Your task to perform on an android device: toggle location history Image 0: 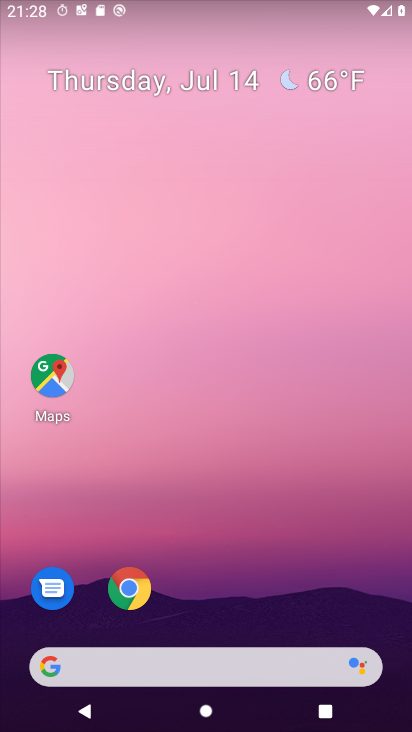
Step 0: drag from (341, 602) to (358, 120)
Your task to perform on an android device: toggle location history Image 1: 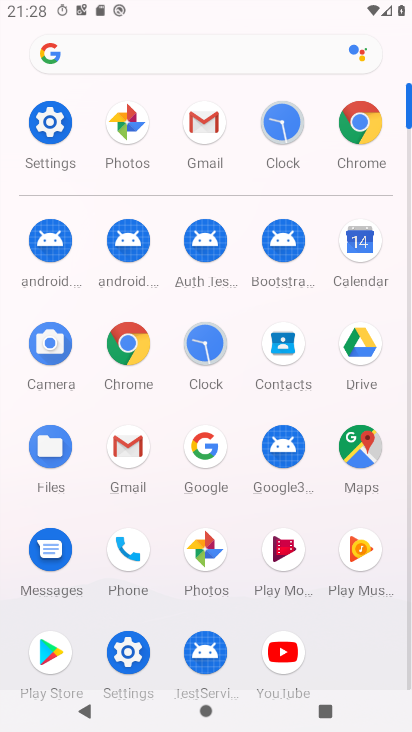
Step 1: click (60, 127)
Your task to perform on an android device: toggle location history Image 2: 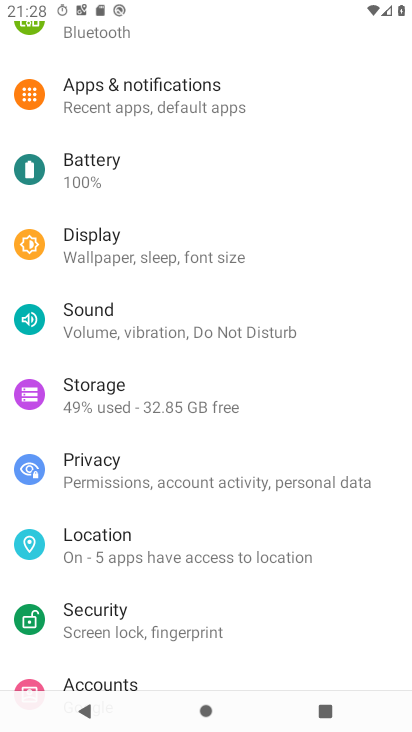
Step 2: drag from (348, 237) to (349, 337)
Your task to perform on an android device: toggle location history Image 3: 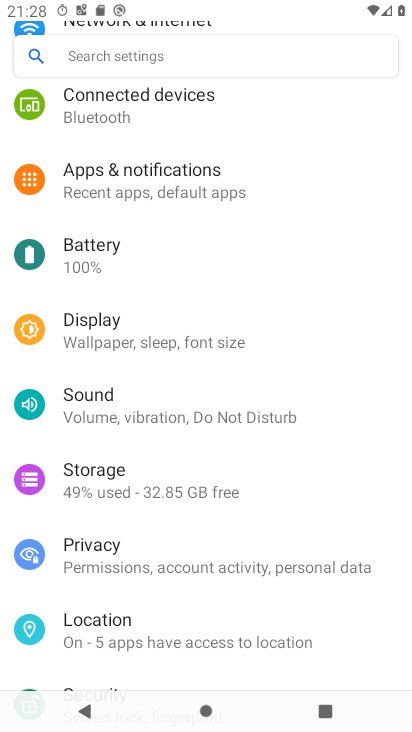
Step 3: drag from (350, 239) to (347, 347)
Your task to perform on an android device: toggle location history Image 4: 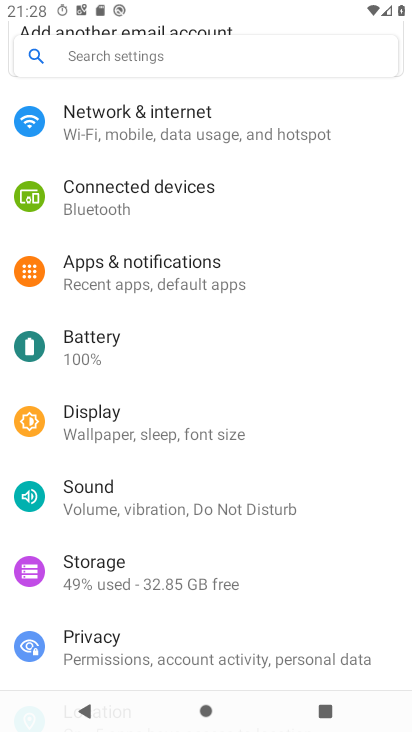
Step 4: drag from (364, 235) to (349, 361)
Your task to perform on an android device: toggle location history Image 5: 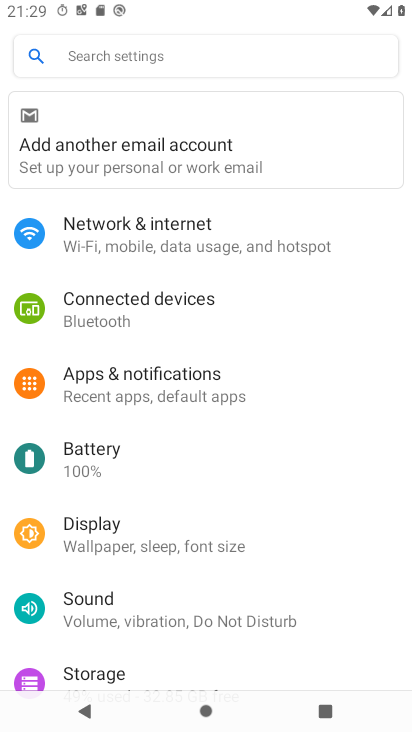
Step 5: drag from (364, 297) to (348, 403)
Your task to perform on an android device: toggle location history Image 6: 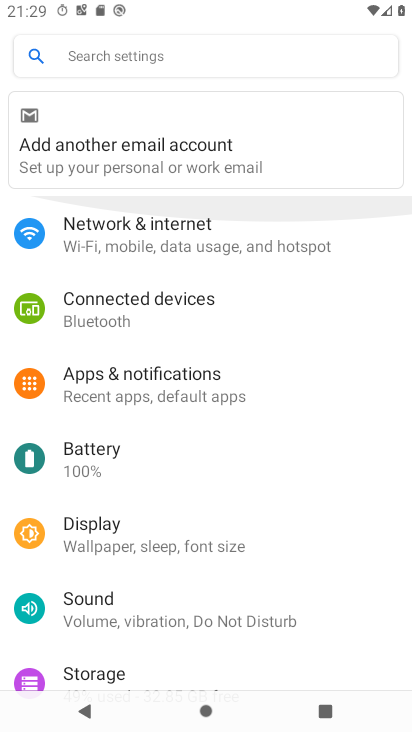
Step 6: drag from (353, 461) to (363, 328)
Your task to perform on an android device: toggle location history Image 7: 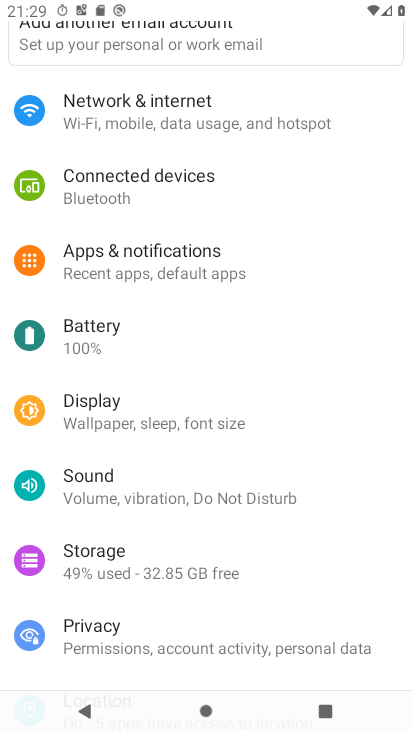
Step 7: drag from (364, 449) to (368, 367)
Your task to perform on an android device: toggle location history Image 8: 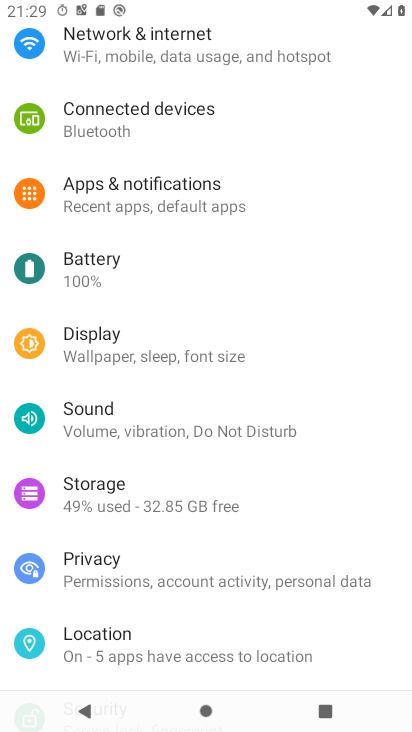
Step 8: drag from (368, 486) to (367, 385)
Your task to perform on an android device: toggle location history Image 9: 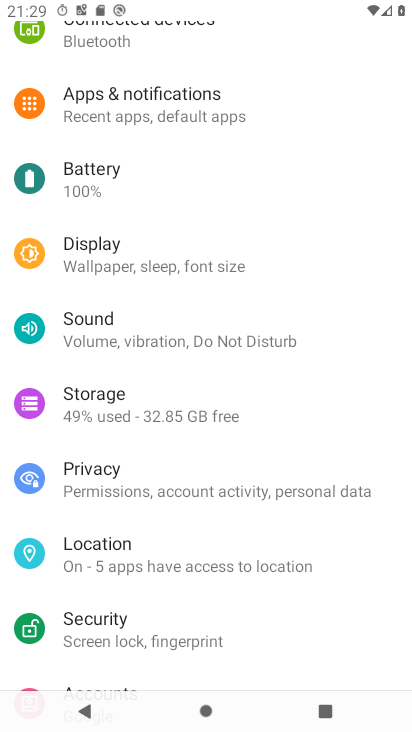
Step 9: drag from (364, 521) to (366, 420)
Your task to perform on an android device: toggle location history Image 10: 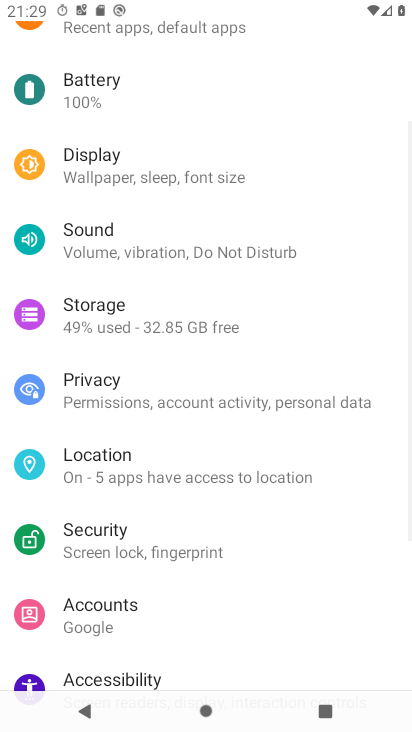
Step 10: drag from (358, 505) to (362, 427)
Your task to perform on an android device: toggle location history Image 11: 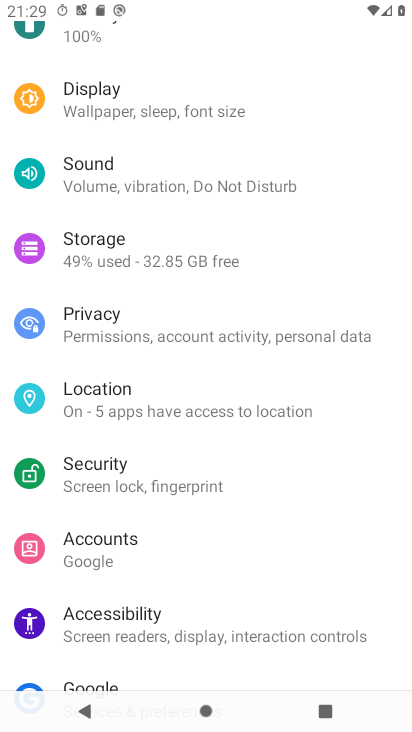
Step 11: click (324, 399)
Your task to perform on an android device: toggle location history Image 12: 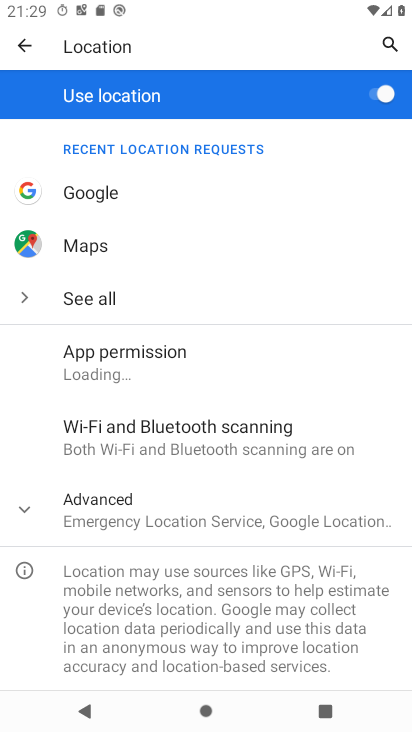
Step 12: click (317, 501)
Your task to perform on an android device: toggle location history Image 13: 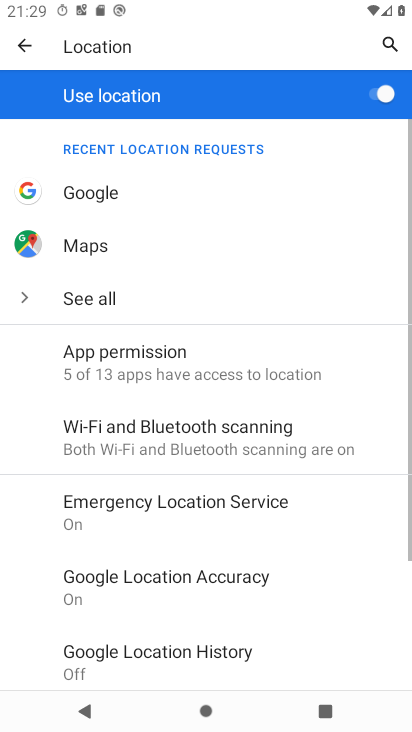
Step 13: drag from (333, 537) to (342, 459)
Your task to perform on an android device: toggle location history Image 14: 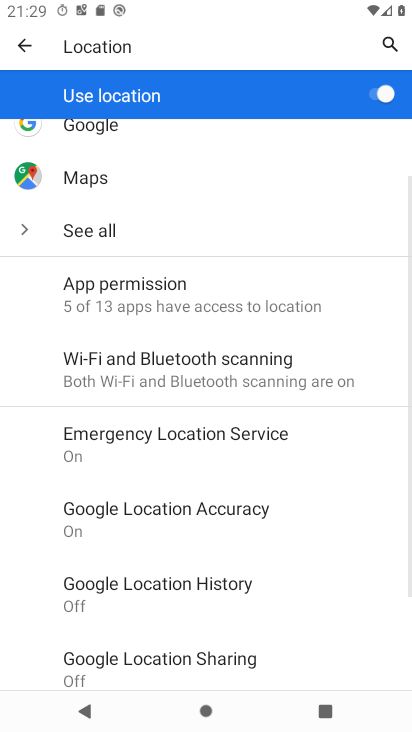
Step 14: drag from (349, 530) to (354, 425)
Your task to perform on an android device: toggle location history Image 15: 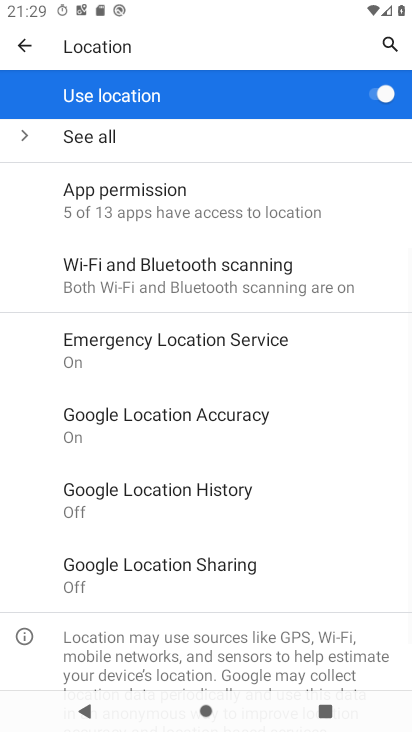
Step 15: drag from (349, 508) to (344, 338)
Your task to perform on an android device: toggle location history Image 16: 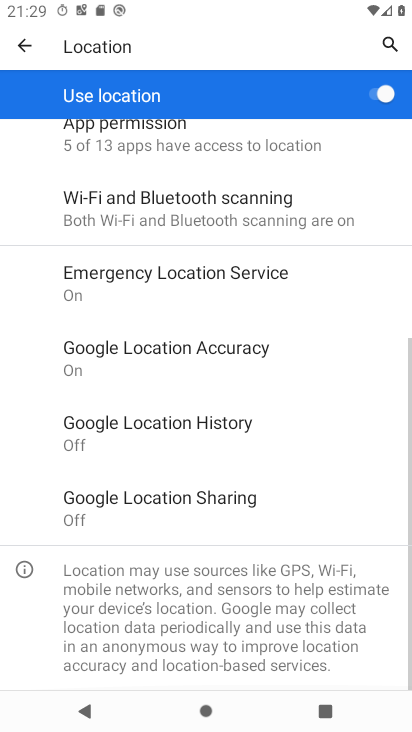
Step 16: click (296, 444)
Your task to perform on an android device: toggle location history Image 17: 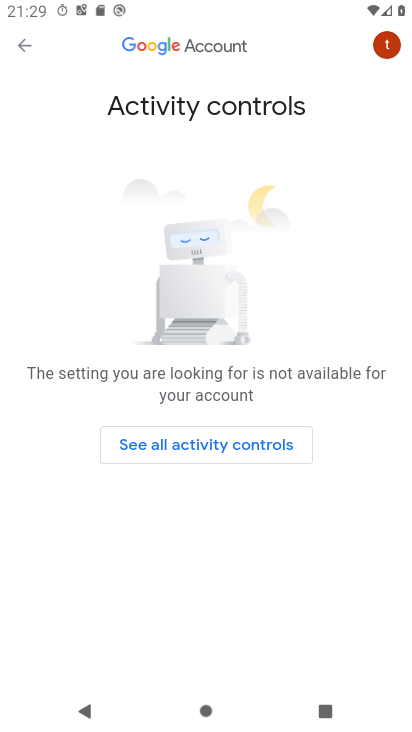
Step 17: click (237, 445)
Your task to perform on an android device: toggle location history Image 18: 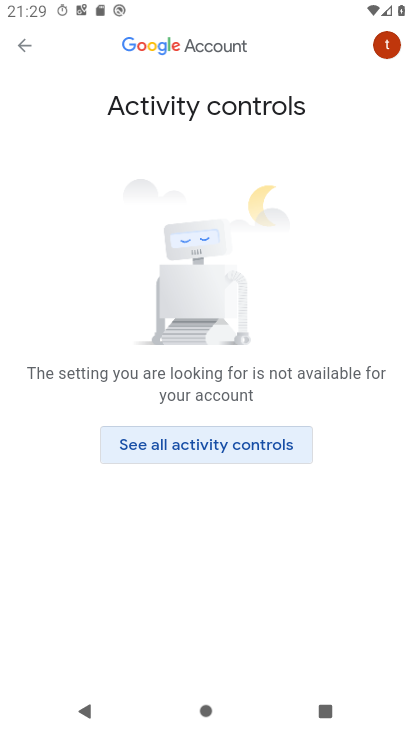
Step 18: click (218, 452)
Your task to perform on an android device: toggle location history Image 19: 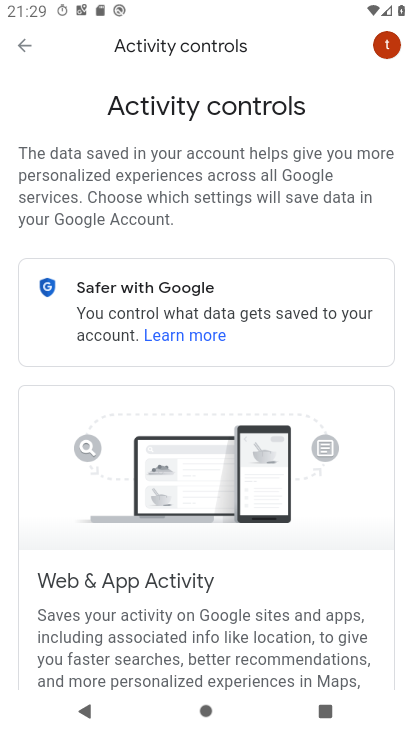
Step 19: drag from (310, 558) to (305, 451)
Your task to perform on an android device: toggle location history Image 20: 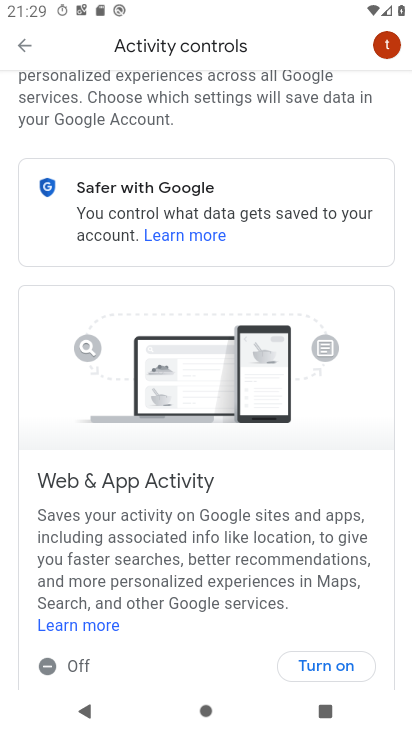
Step 20: drag from (297, 550) to (294, 470)
Your task to perform on an android device: toggle location history Image 21: 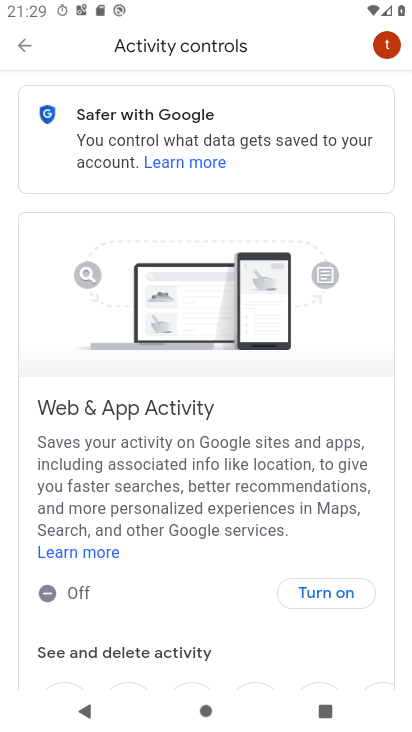
Step 21: click (327, 589)
Your task to perform on an android device: toggle location history Image 22: 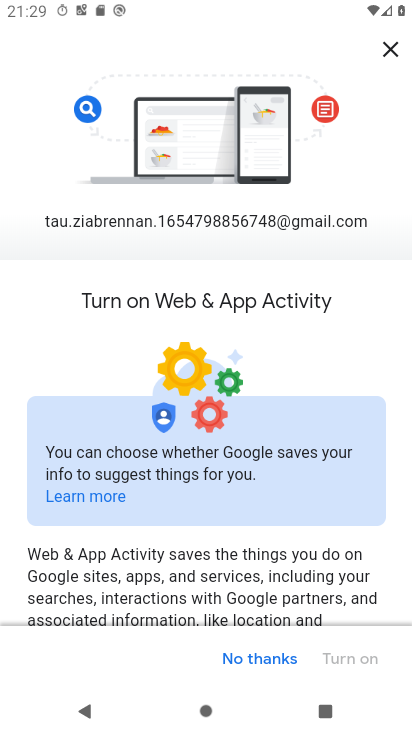
Step 22: drag from (289, 527) to (285, 401)
Your task to perform on an android device: toggle location history Image 23: 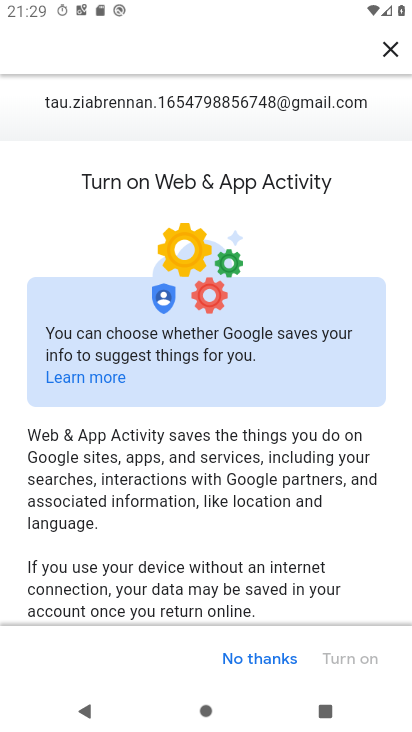
Step 23: drag from (283, 534) to (282, 419)
Your task to perform on an android device: toggle location history Image 24: 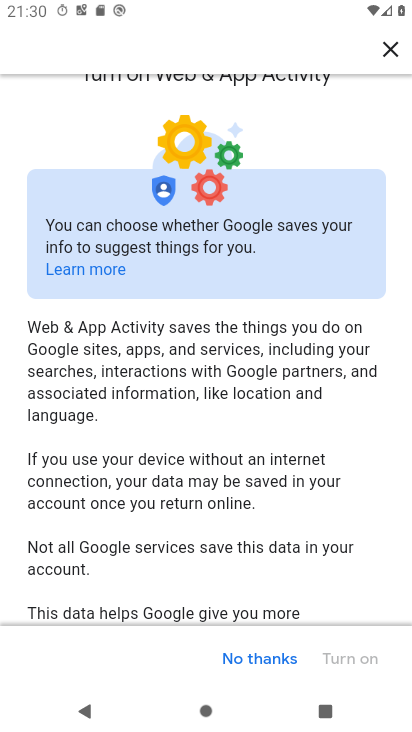
Step 24: drag from (282, 515) to (283, 412)
Your task to perform on an android device: toggle location history Image 25: 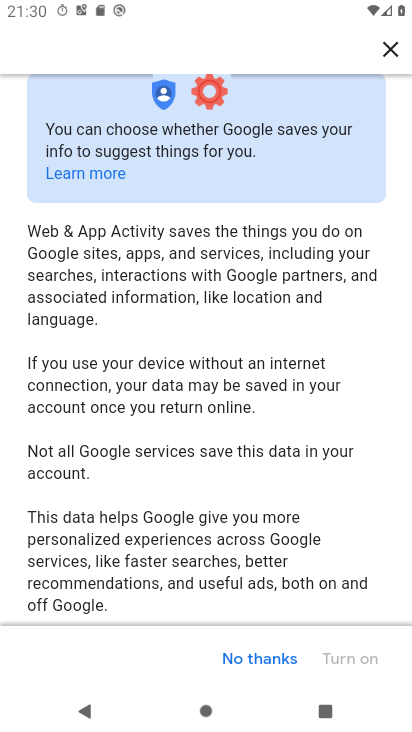
Step 25: drag from (327, 527) to (319, 400)
Your task to perform on an android device: toggle location history Image 26: 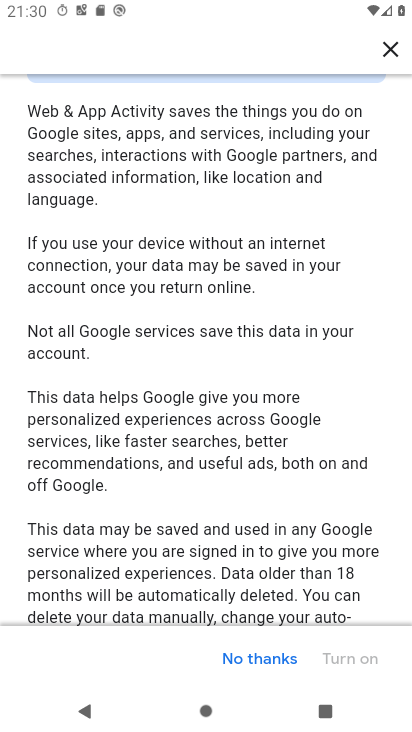
Step 26: drag from (321, 530) to (307, 374)
Your task to perform on an android device: toggle location history Image 27: 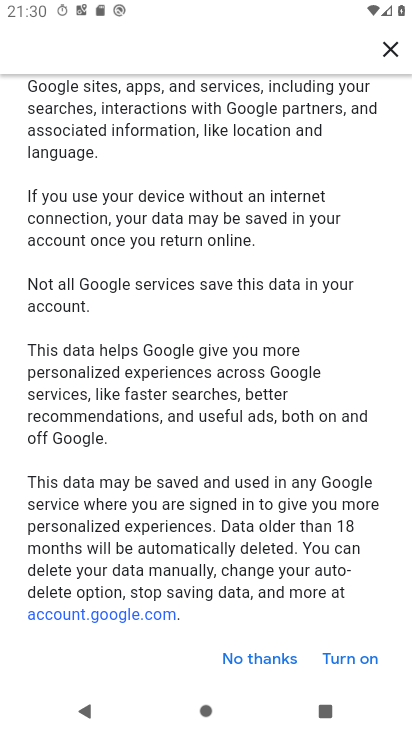
Step 27: click (346, 654)
Your task to perform on an android device: toggle location history Image 28: 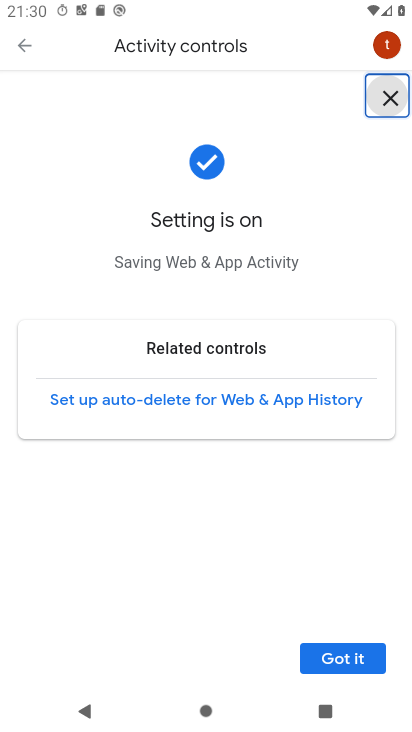
Step 28: task complete